Your task to perform on an android device: Open Google Chrome and click the shortcut for Amazon.com Image 0: 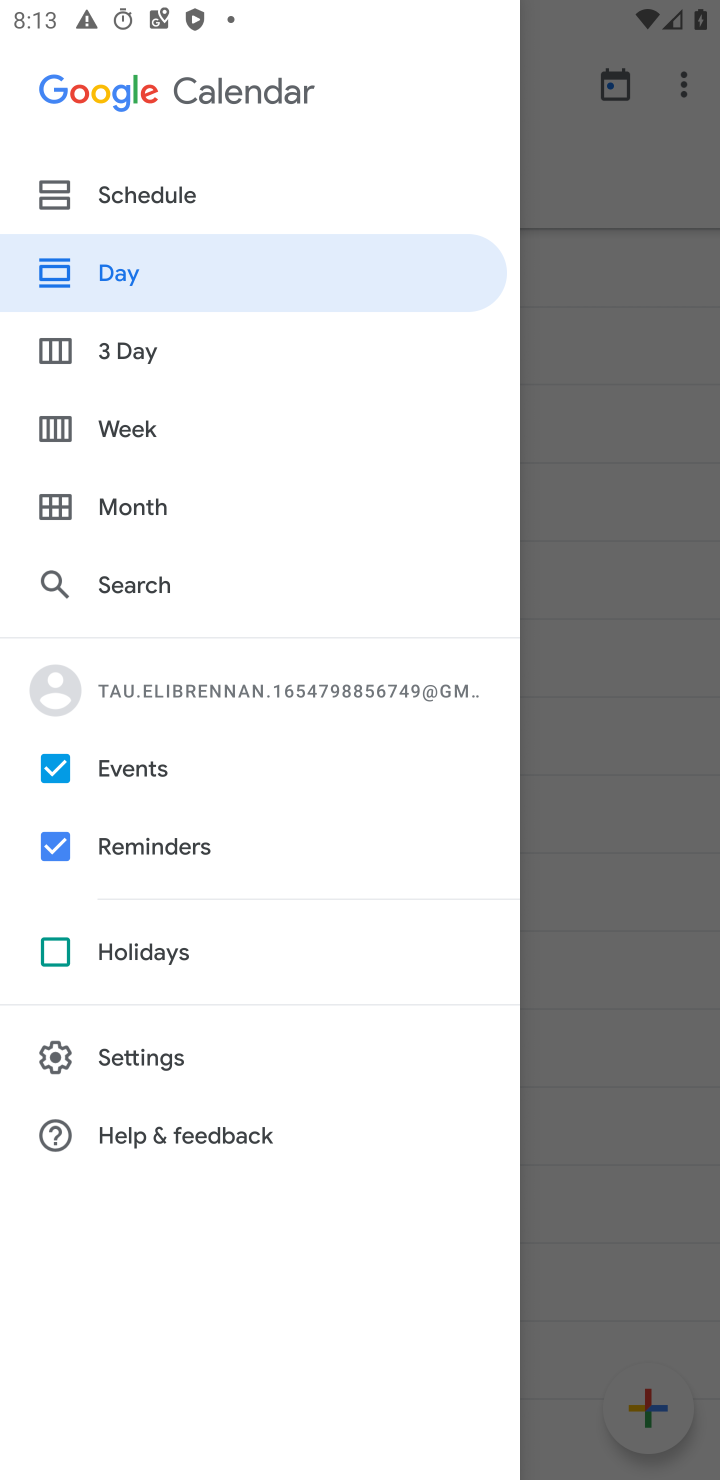
Step 0: press home button
Your task to perform on an android device: Open Google Chrome and click the shortcut for Amazon.com Image 1: 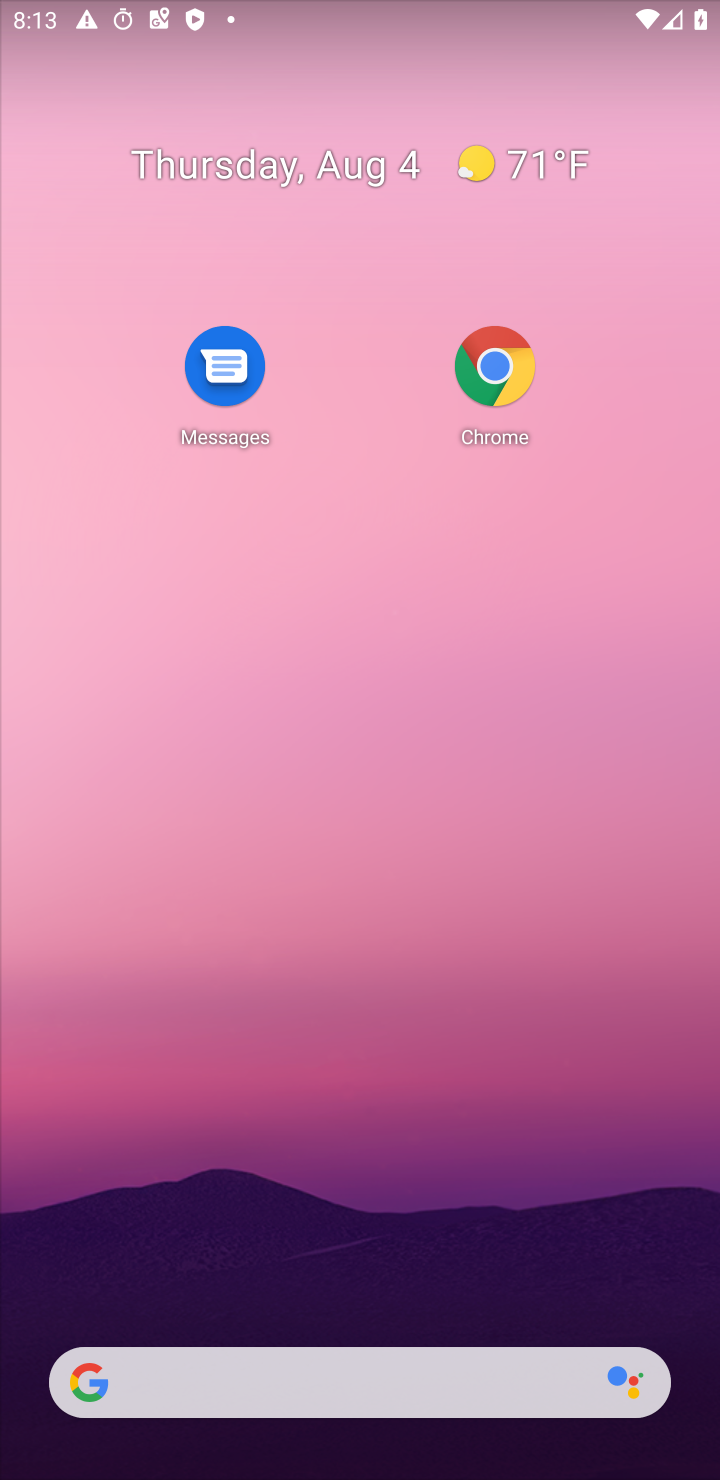
Step 1: drag from (396, 1419) to (373, 268)
Your task to perform on an android device: Open Google Chrome and click the shortcut for Amazon.com Image 2: 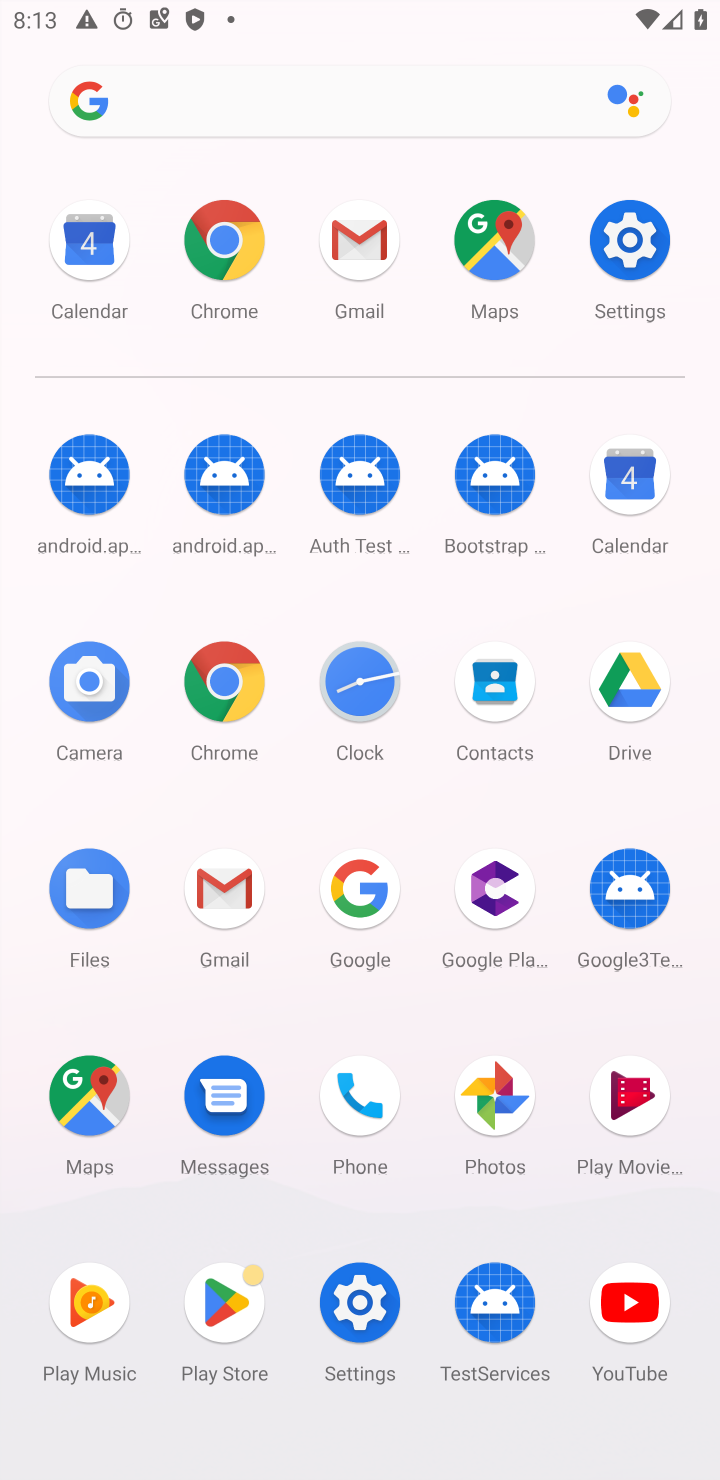
Step 2: click (237, 256)
Your task to perform on an android device: Open Google Chrome and click the shortcut for Amazon.com Image 3: 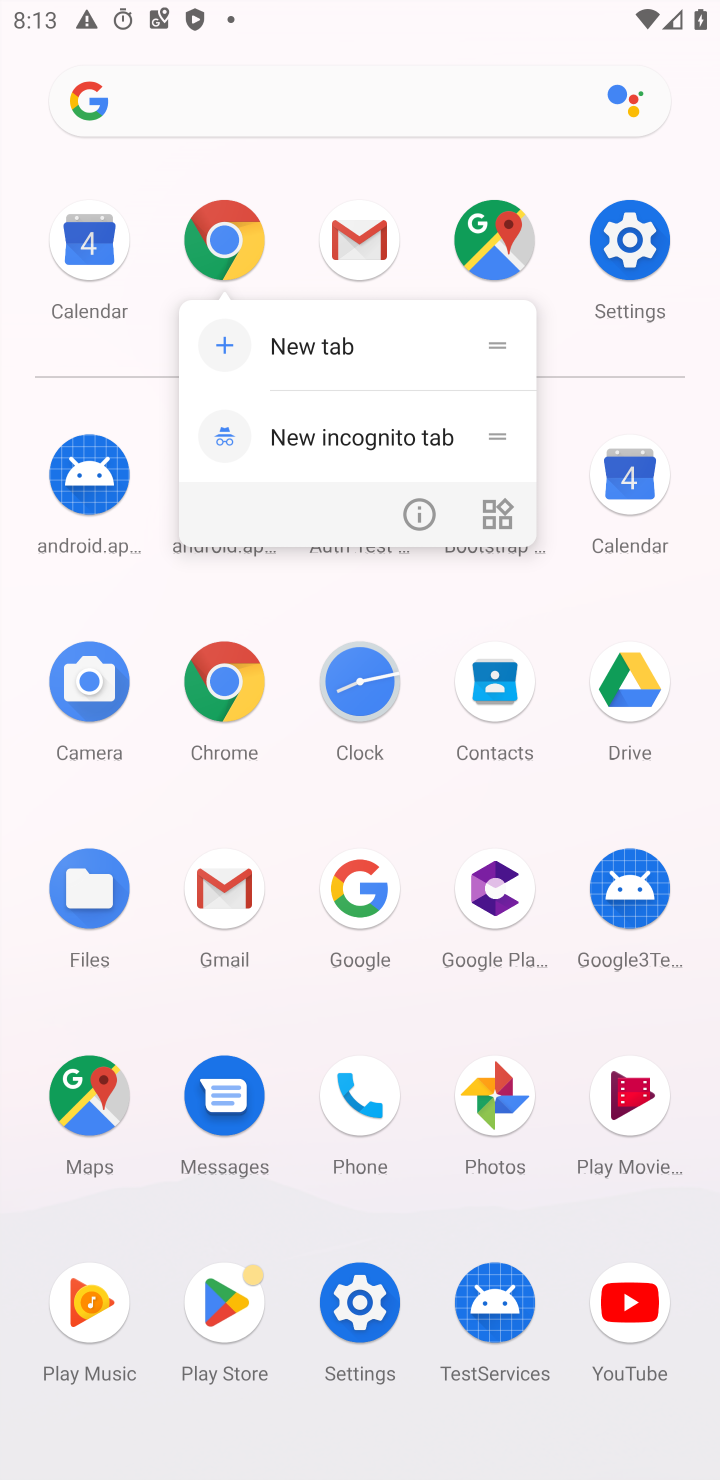
Step 3: click (242, 243)
Your task to perform on an android device: Open Google Chrome and click the shortcut for Amazon.com Image 4: 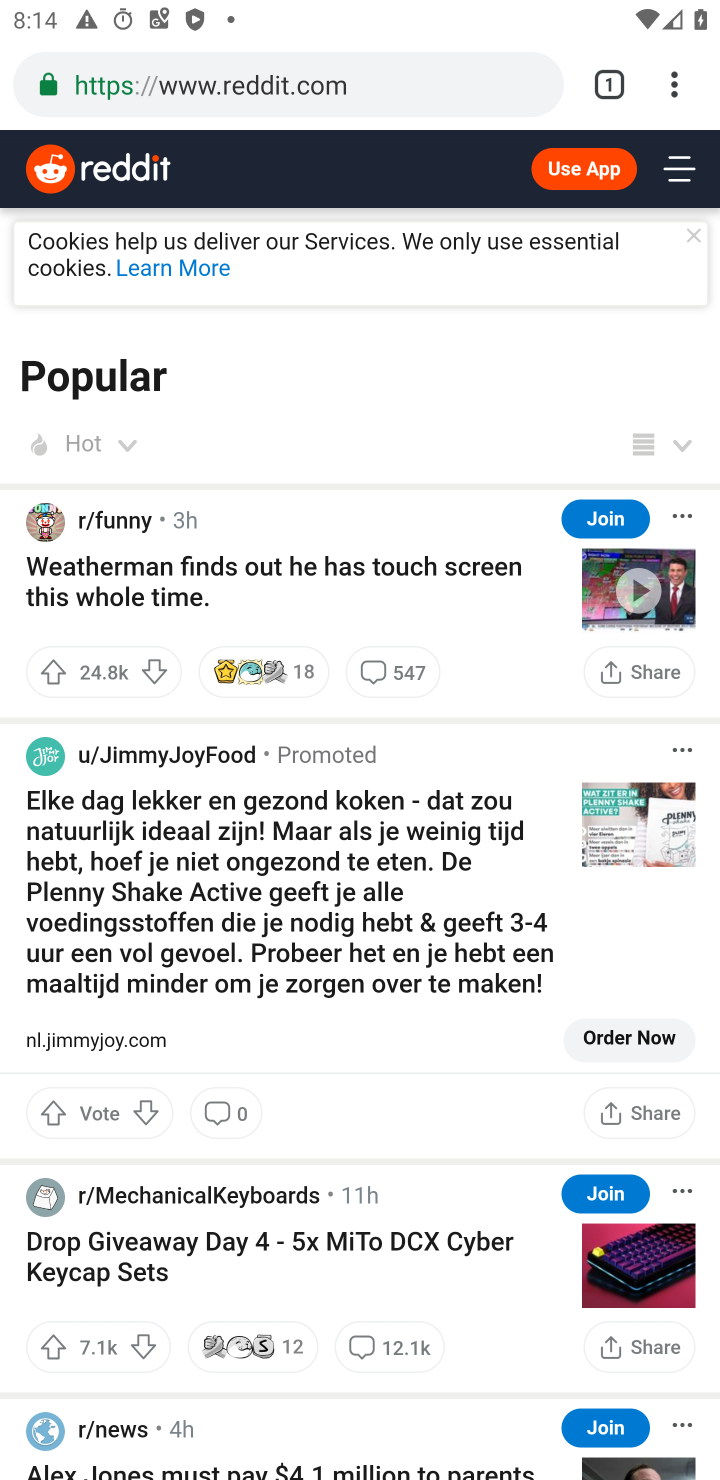
Step 4: click (677, 82)
Your task to perform on an android device: Open Google Chrome and click the shortcut for Amazon.com Image 5: 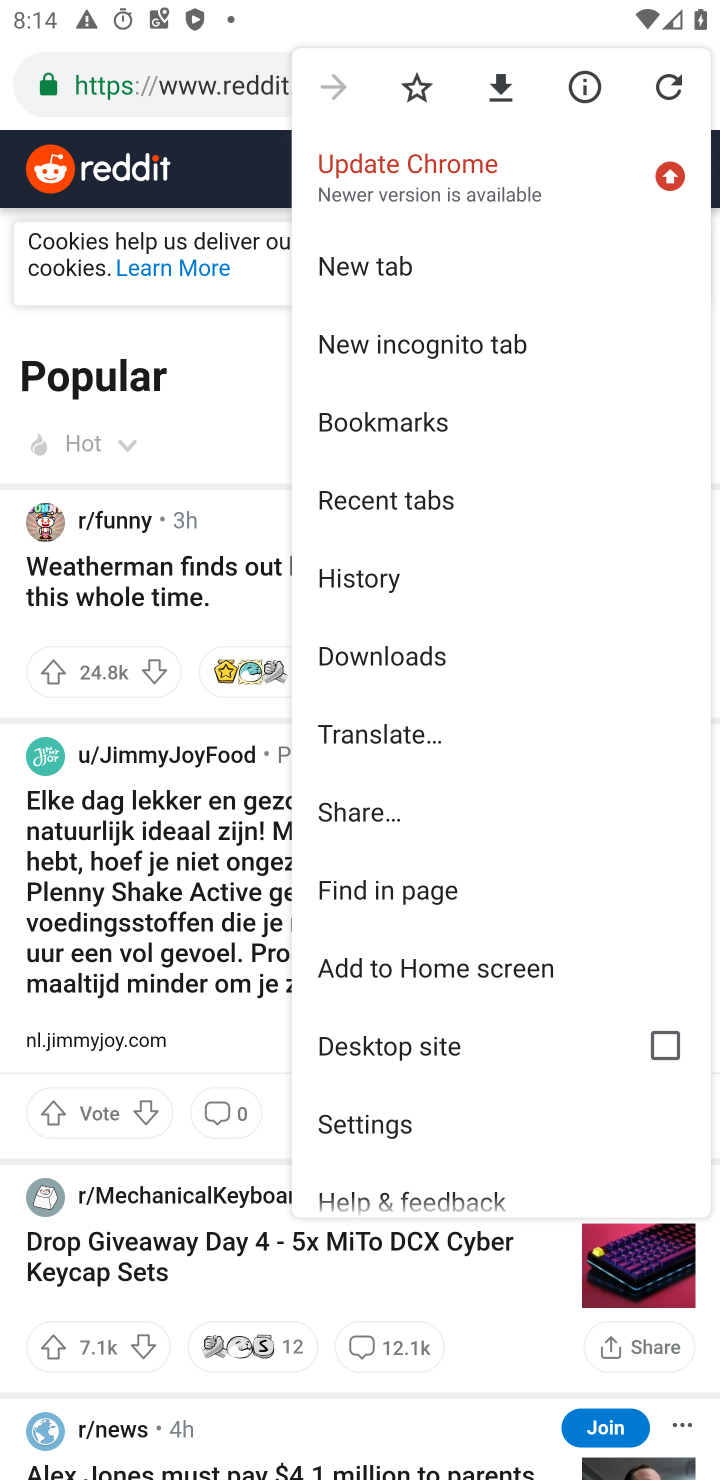
Step 5: click (390, 261)
Your task to perform on an android device: Open Google Chrome and click the shortcut for Amazon.com Image 6: 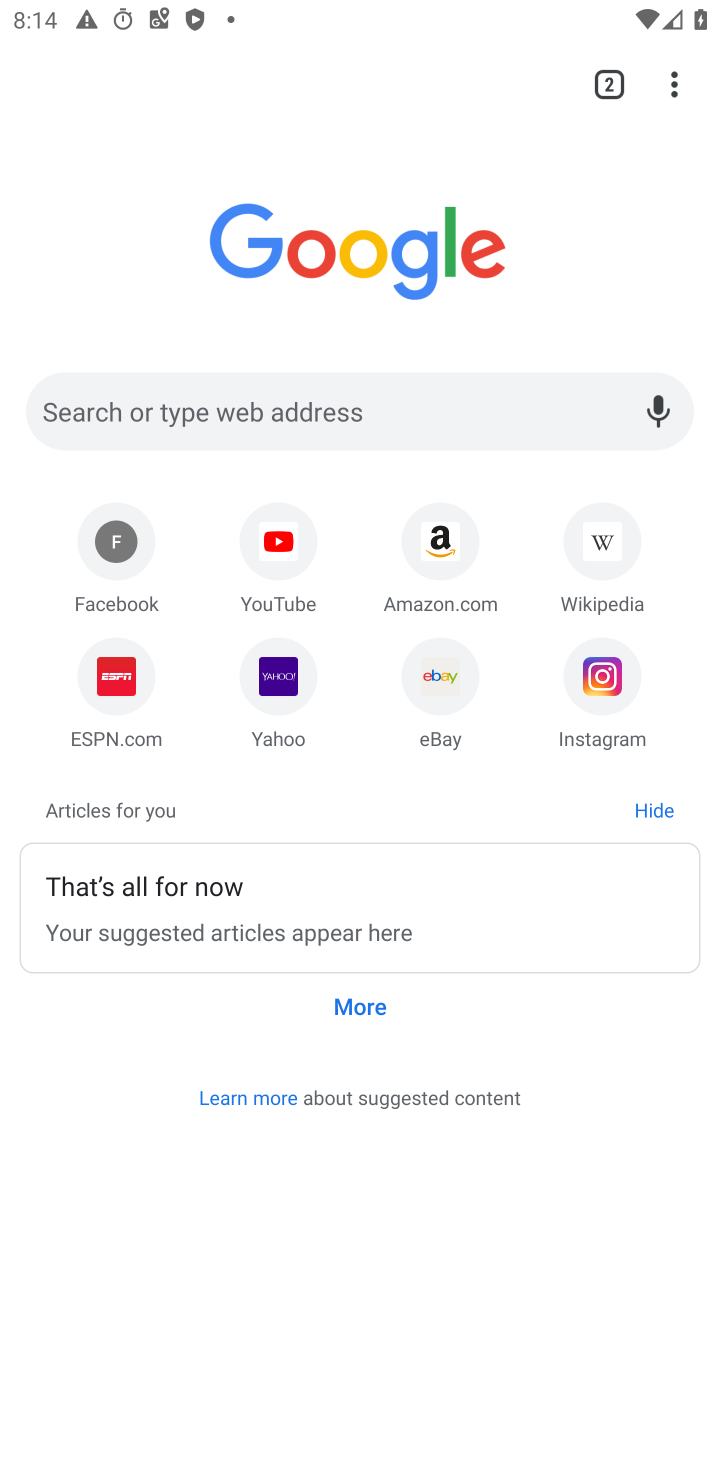
Step 6: click (441, 530)
Your task to perform on an android device: Open Google Chrome and click the shortcut for Amazon.com Image 7: 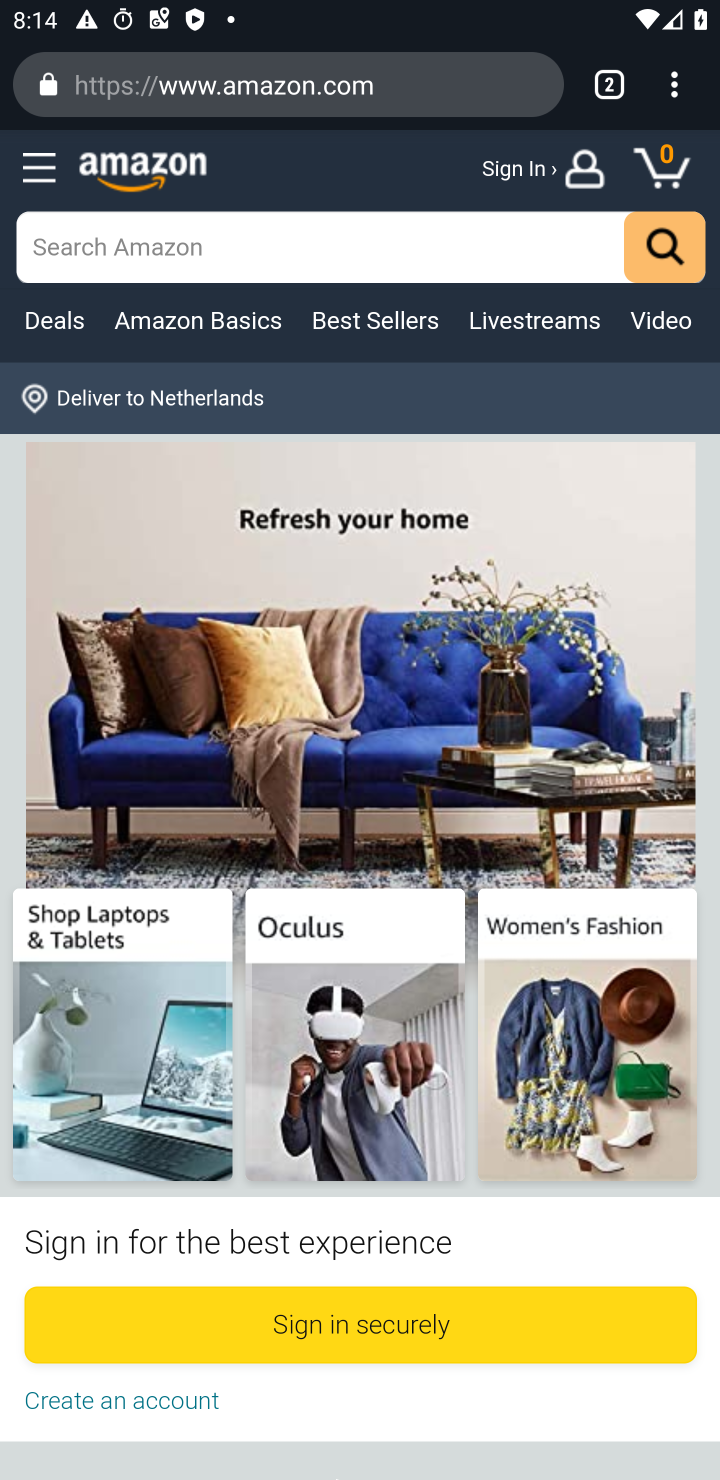
Step 7: click (685, 97)
Your task to perform on an android device: Open Google Chrome and click the shortcut for Amazon.com Image 8: 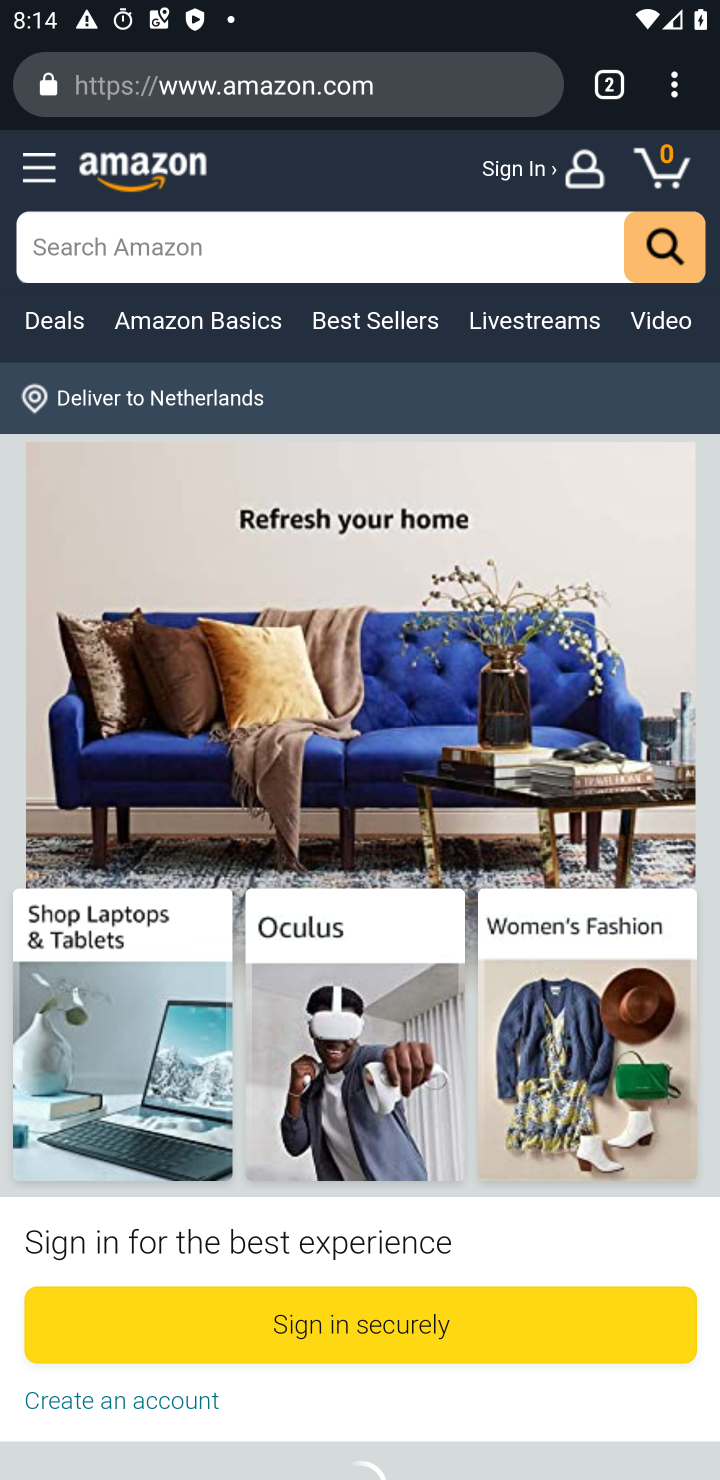
Step 8: click (677, 101)
Your task to perform on an android device: Open Google Chrome and click the shortcut for Amazon.com Image 9: 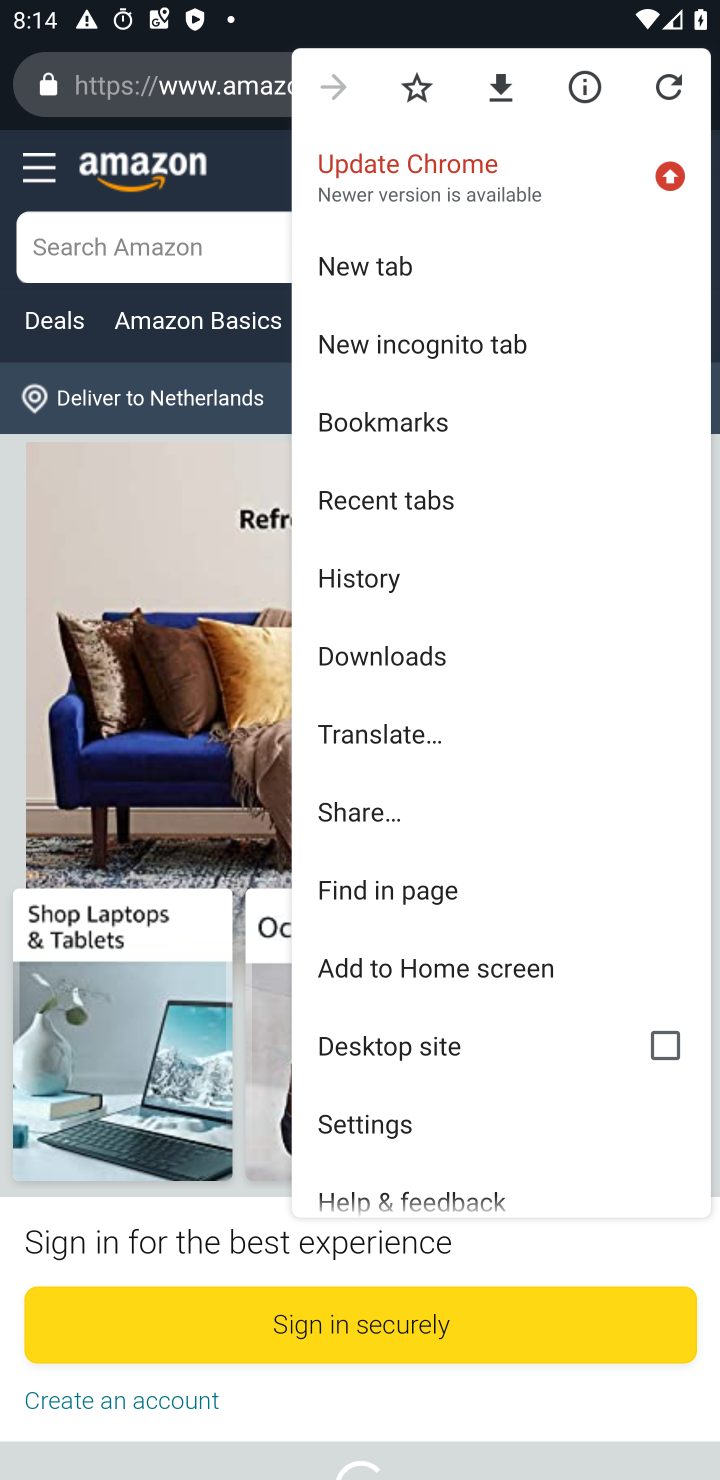
Step 9: click (384, 963)
Your task to perform on an android device: Open Google Chrome and click the shortcut for Amazon.com Image 10: 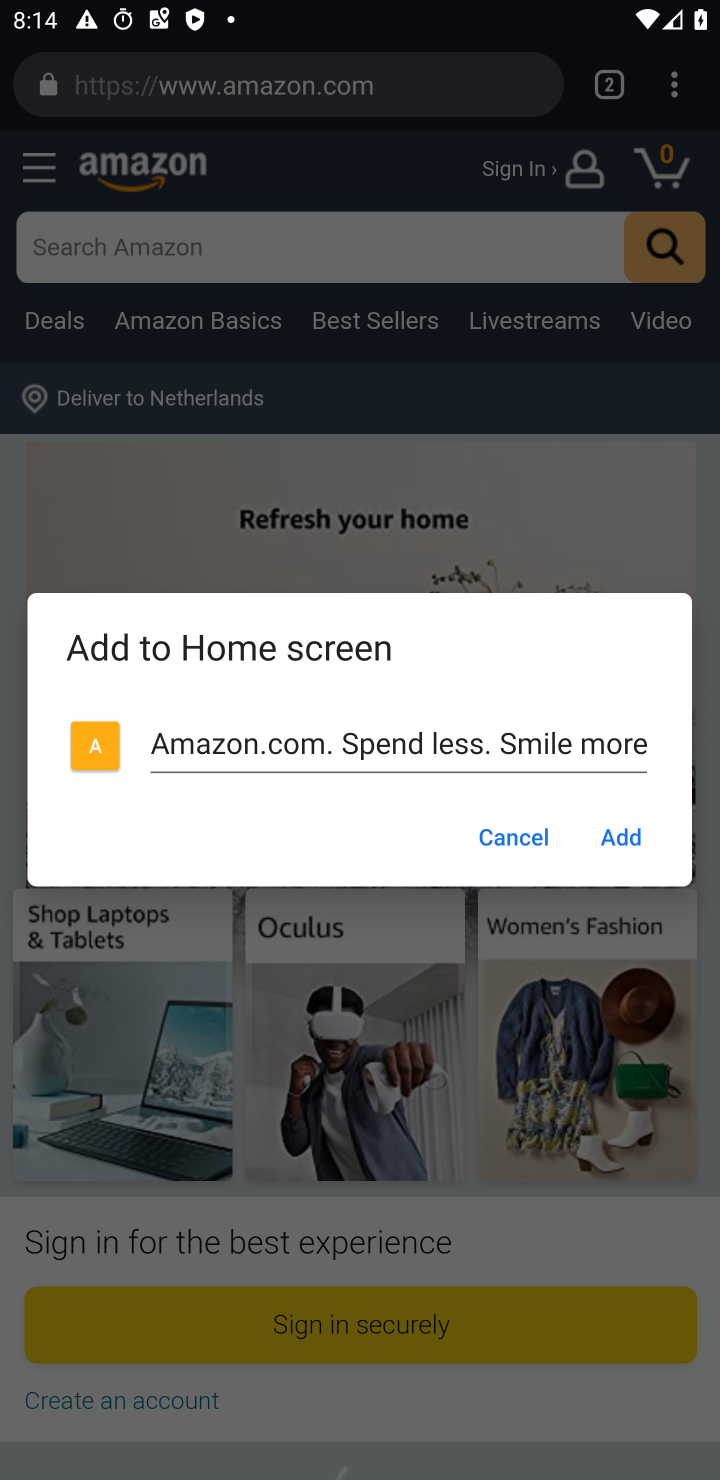
Step 10: click (630, 842)
Your task to perform on an android device: Open Google Chrome and click the shortcut for Amazon.com Image 11: 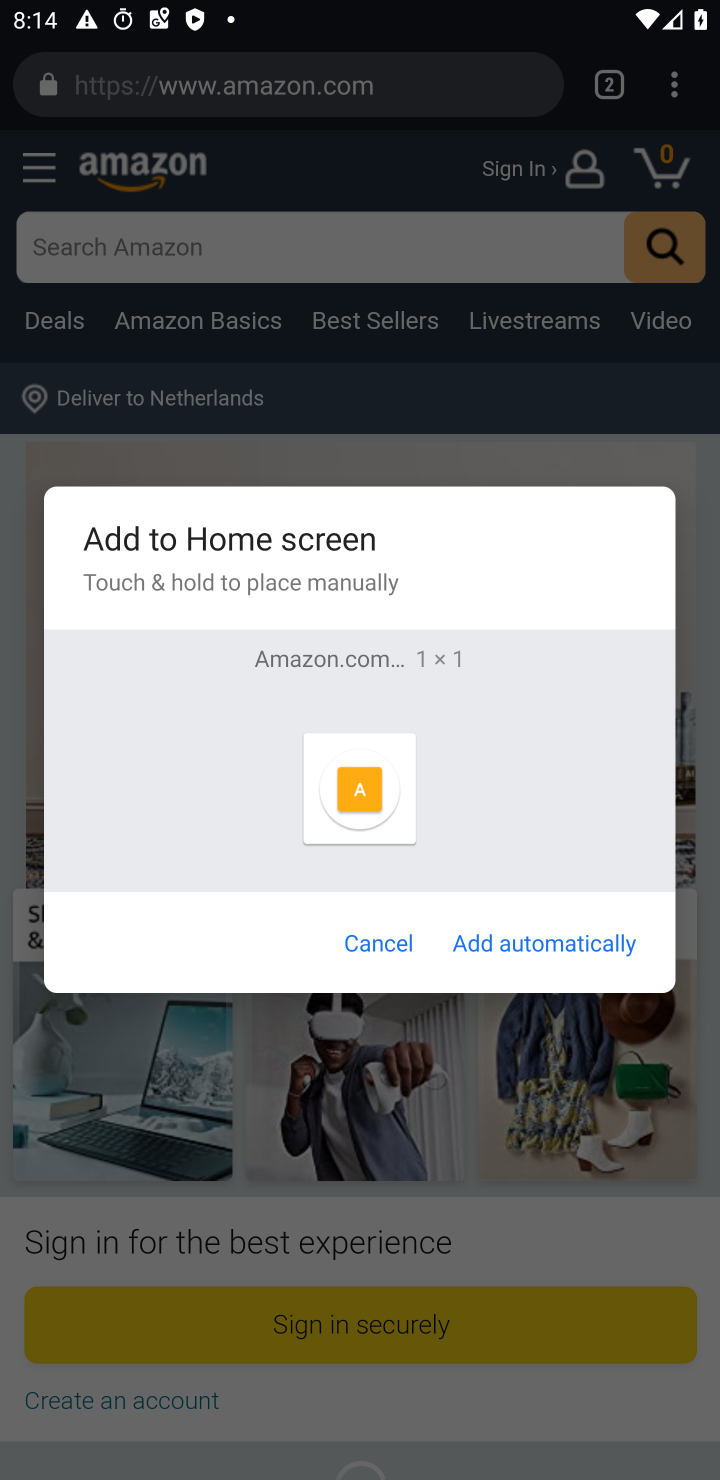
Step 11: click (583, 943)
Your task to perform on an android device: Open Google Chrome and click the shortcut for Amazon.com Image 12: 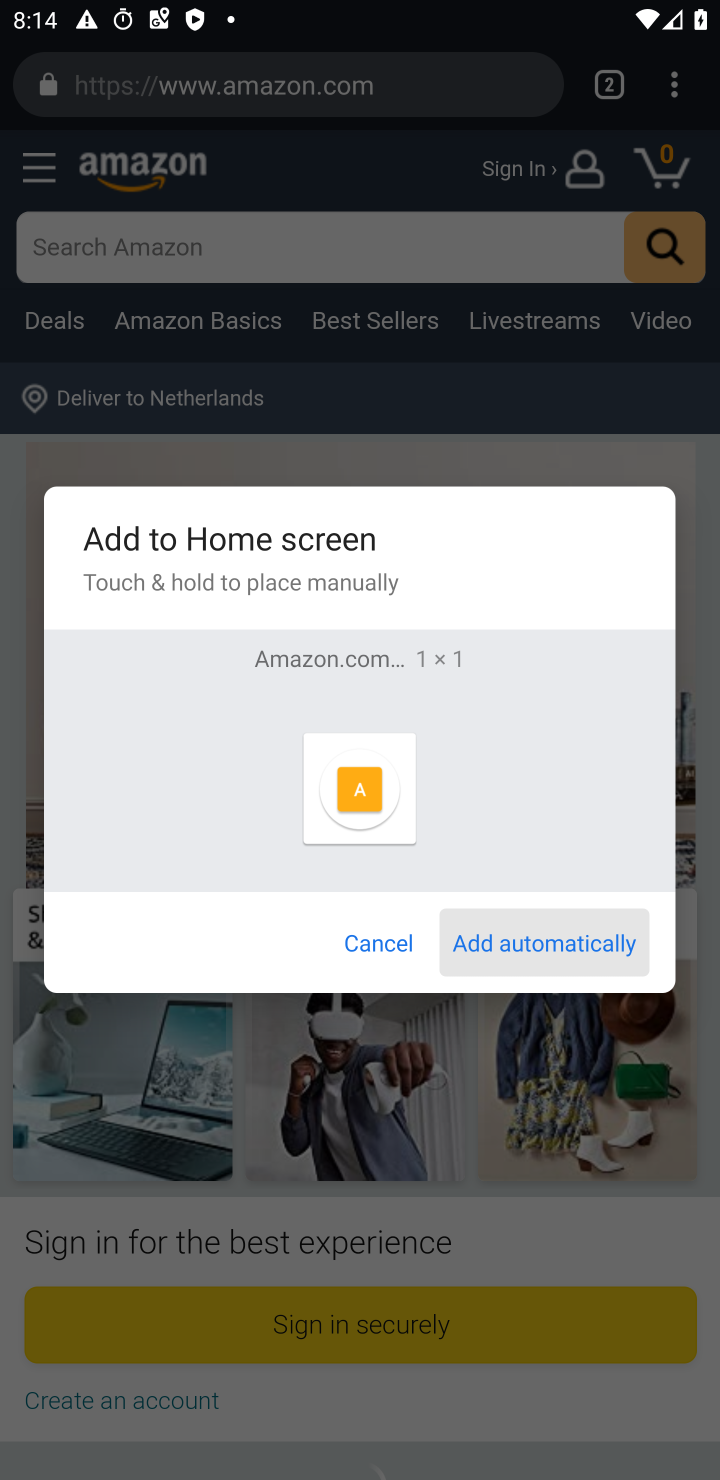
Step 12: task complete